Your task to perform on an android device: search for starred emails in the gmail app Image 0: 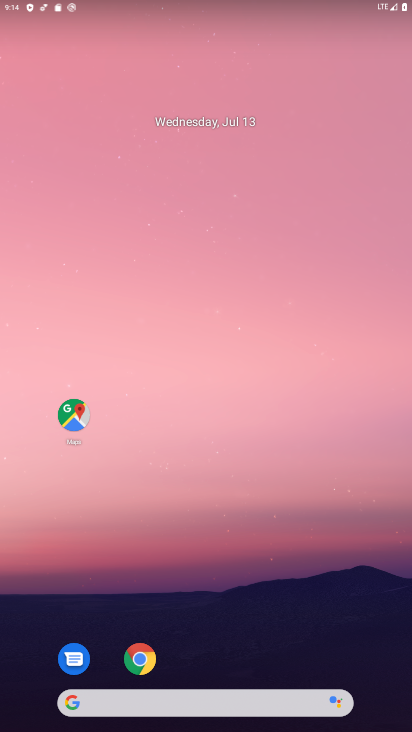
Step 0: drag from (347, 655) to (309, 235)
Your task to perform on an android device: search for starred emails in the gmail app Image 1: 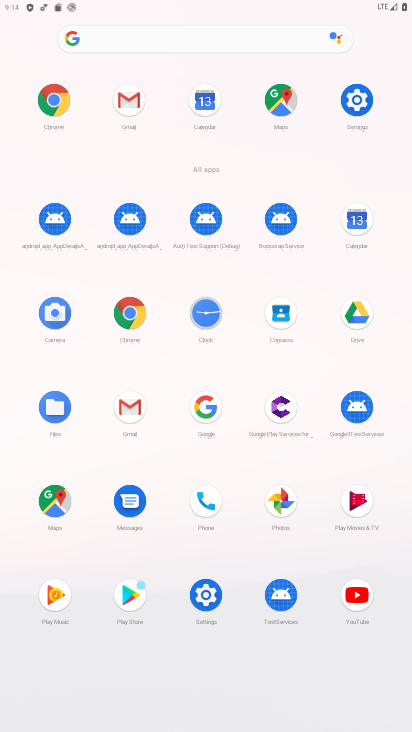
Step 1: click (125, 407)
Your task to perform on an android device: search for starred emails in the gmail app Image 2: 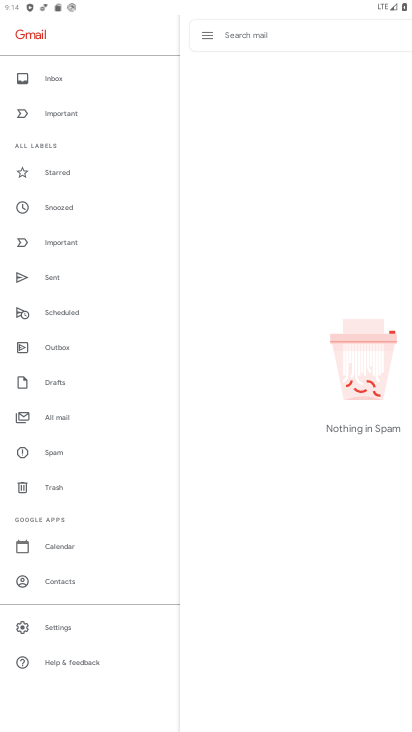
Step 2: click (56, 173)
Your task to perform on an android device: search for starred emails in the gmail app Image 3: 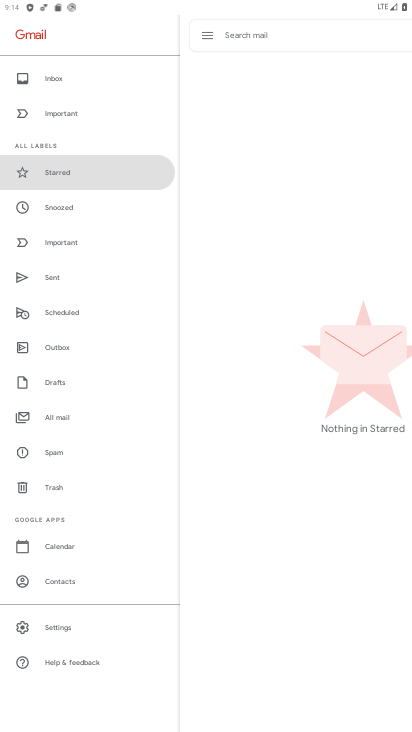
Step 3: task complete